Your task to perform on an android device: What's on my calendar tomorrow? Image 0: 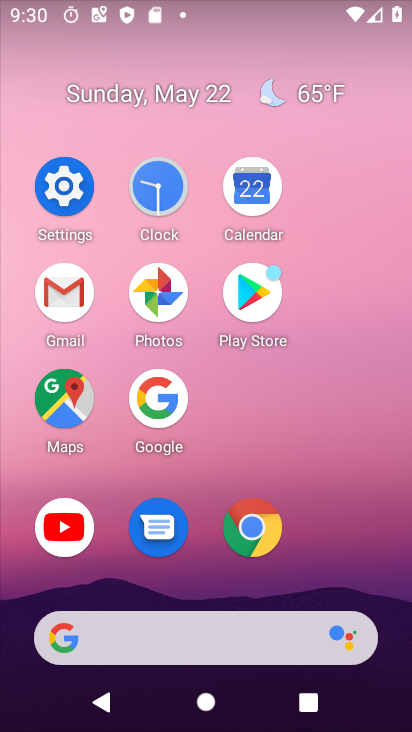
Step 0: click (244, 208)
Your task to perform on an android device: What's on my calendar tomorrow? Image 1: 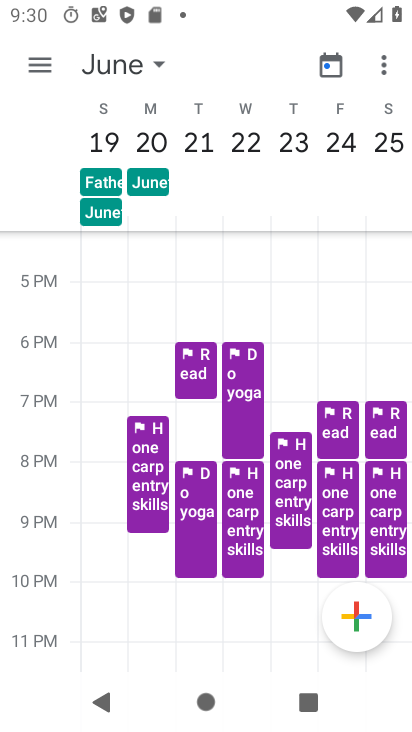
Step 1: click (153, 70)
Your task to perform on an android device: What's on my calendar tomorrow? Image 2: 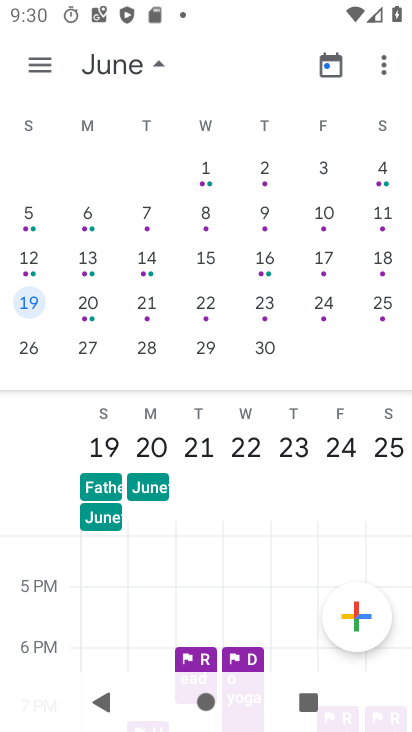
Step 2: drag from (26, 243) to (409, 273)
Your task to perform on an android device: What's on my calendar tomorrow? Image 3: 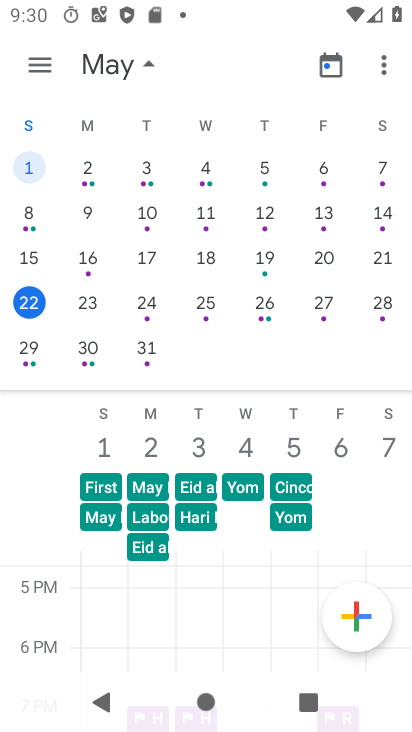
Step 3: click (143, 304)
Your task to perform on an android device: What's on my calendar tomorrow? Image 4: 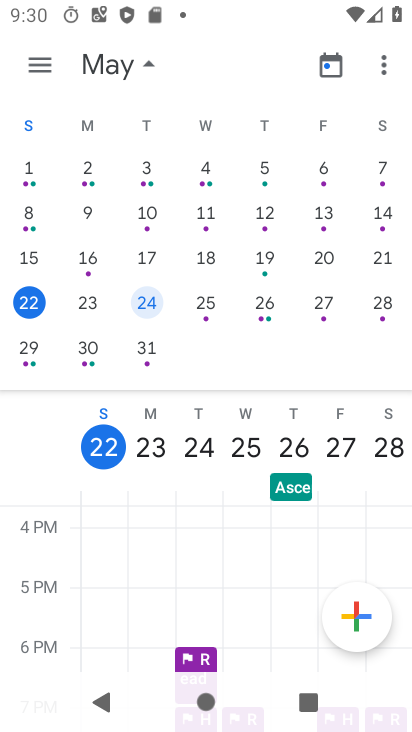
Step 4: task complete